Your task to perform on an android device: uninstall "Booking.com: Hotels and more" Image 0: 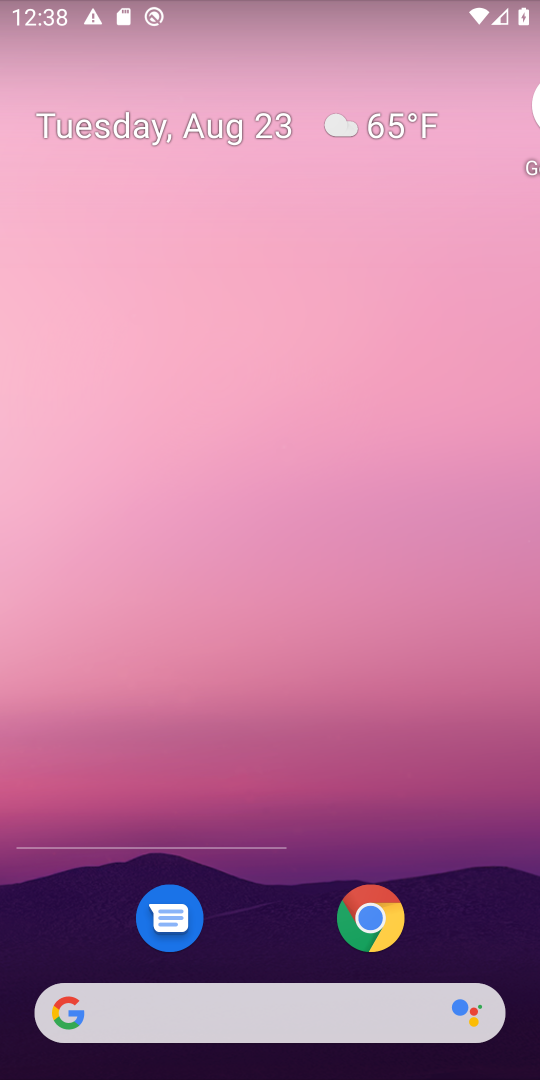
Step 0: press home button
Your task to perform on an android device: uninstall "Booking.com: Hotels and more" Image 1: 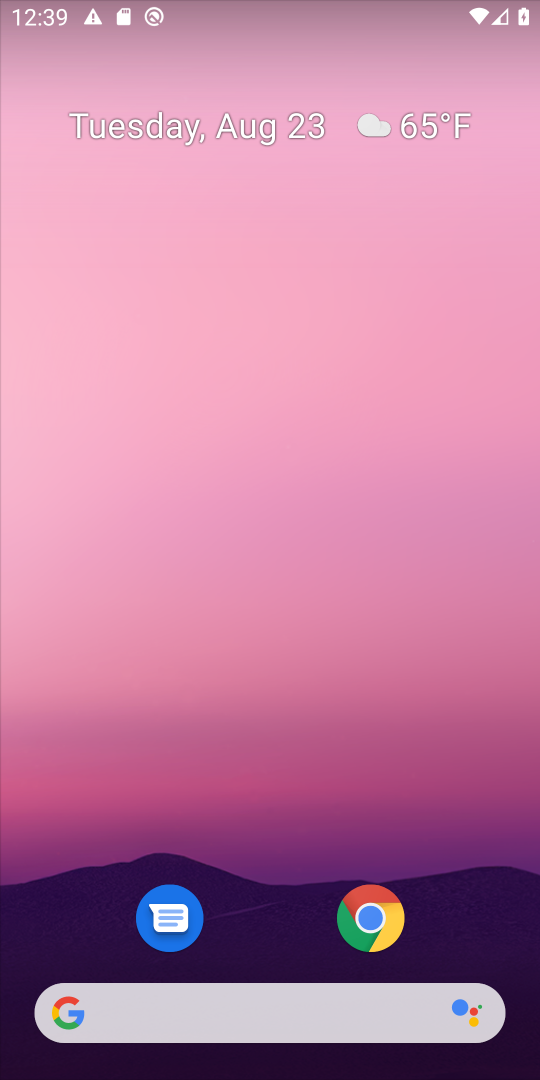
Step 1: press home button
Your task to perform on an android device: uninstall "Booking.com: Hotels and more" Image 2: 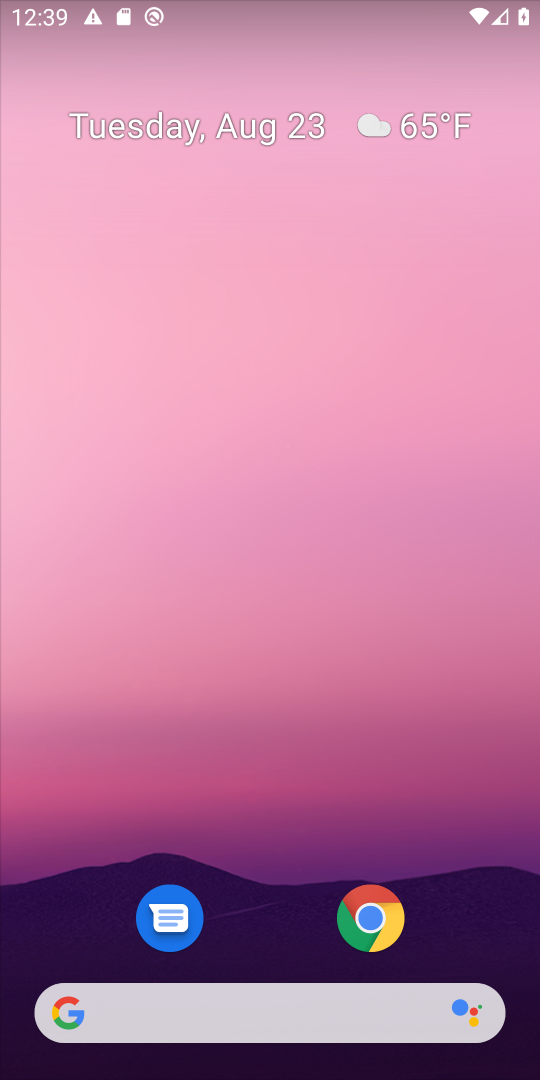
Step 2: click (279, 93)
Your task to perform on an android device: uninstall "Booking.com: Hotels and more" Image 3: 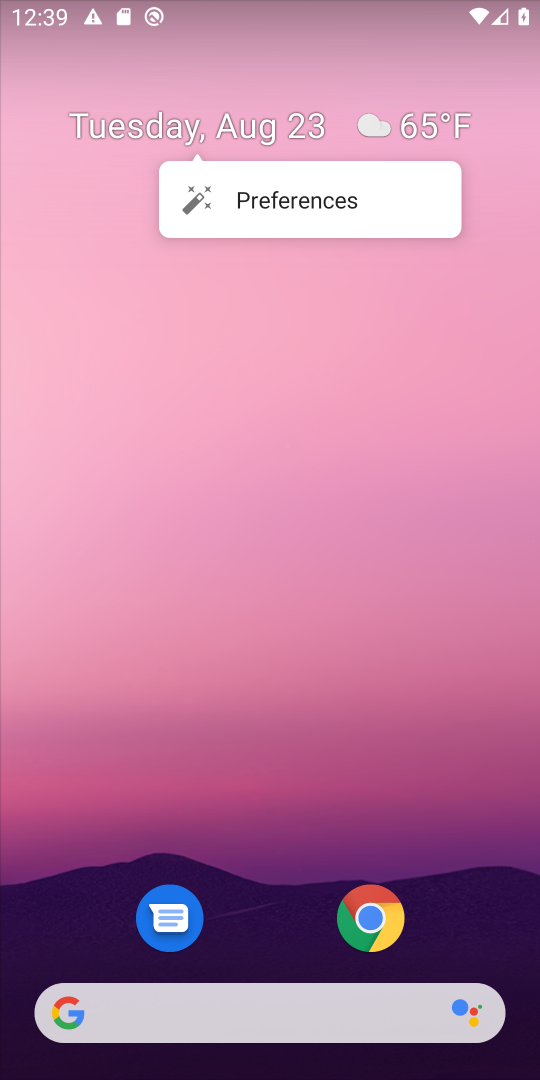
Step 3: click (272, 537)
Your task to perform on an android device: uninstall "Booking.com: Hotels and more" Image 4: 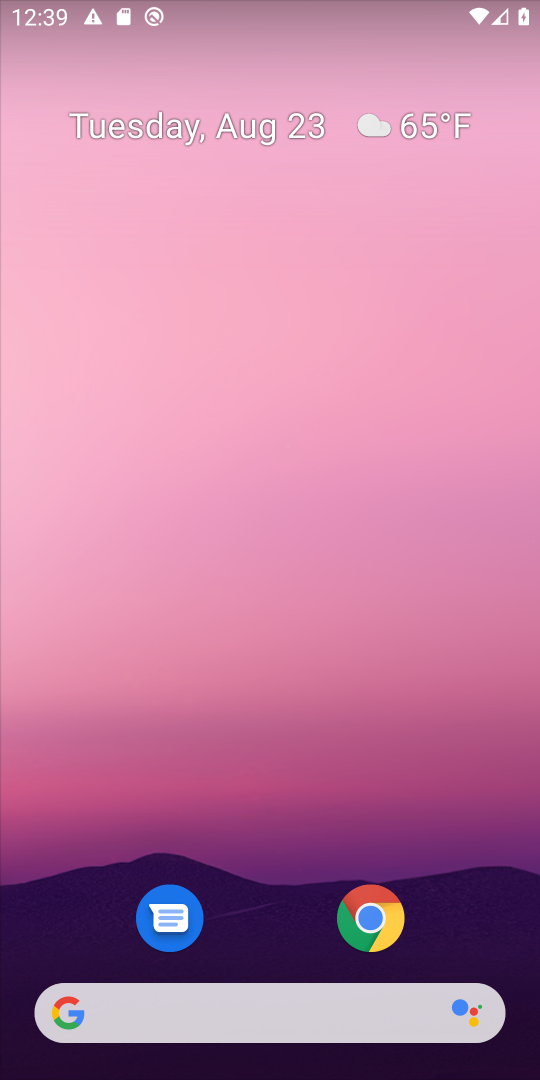
Step 4: drag from (290, 949) to (288, 108)
Your task to perform on an android device: uninstall "Booking.com: Hotels and more" Image 5: 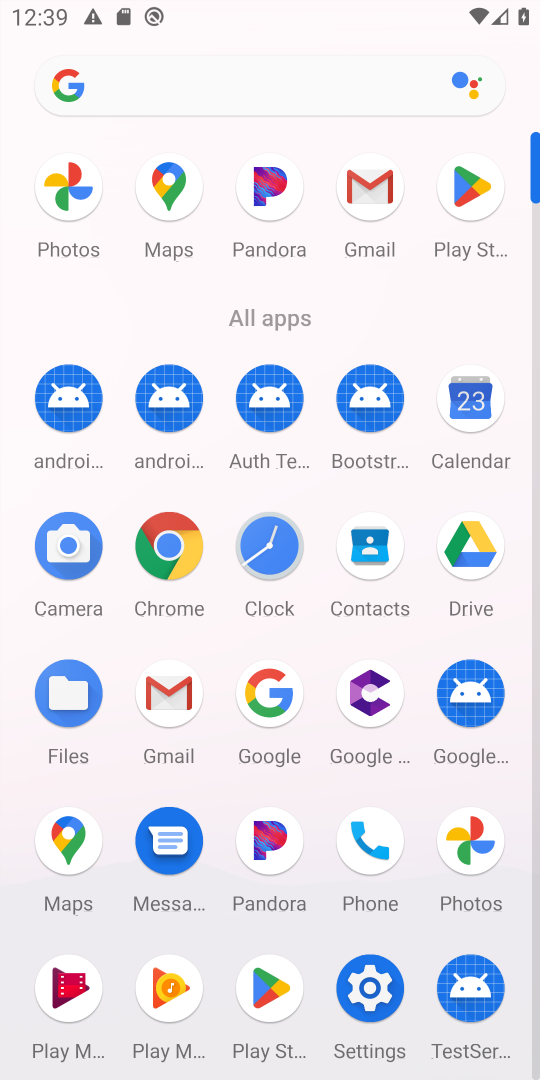
Step 5: click (466, 180)
Your task to perform on an android device: uninstall "Booking.com: Hotels and more" Image 6: 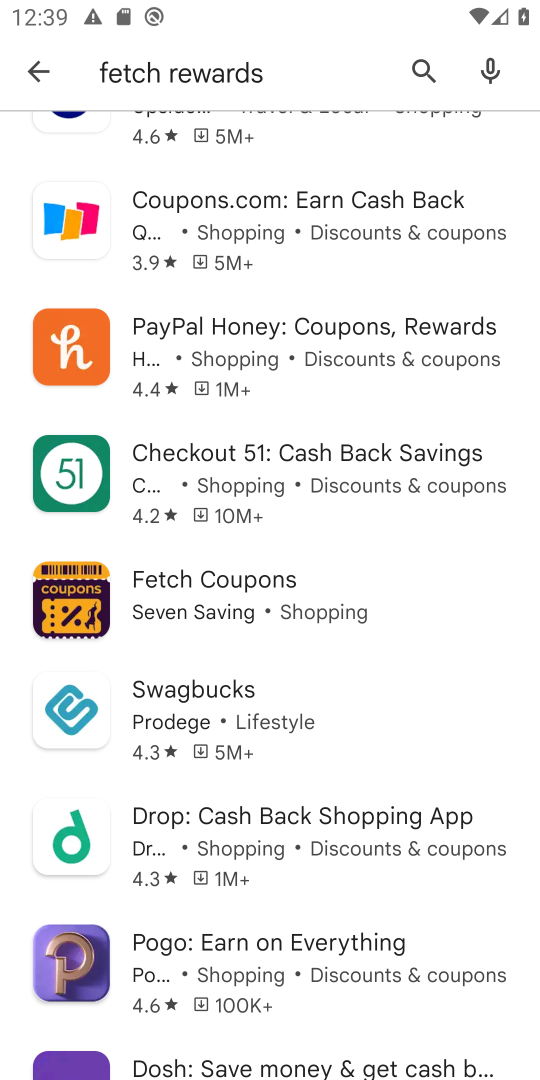
Step 6: click (419, 76)
Your task to perform on an android device: uninstall "Booking.com: Hotels and more" Image 7: 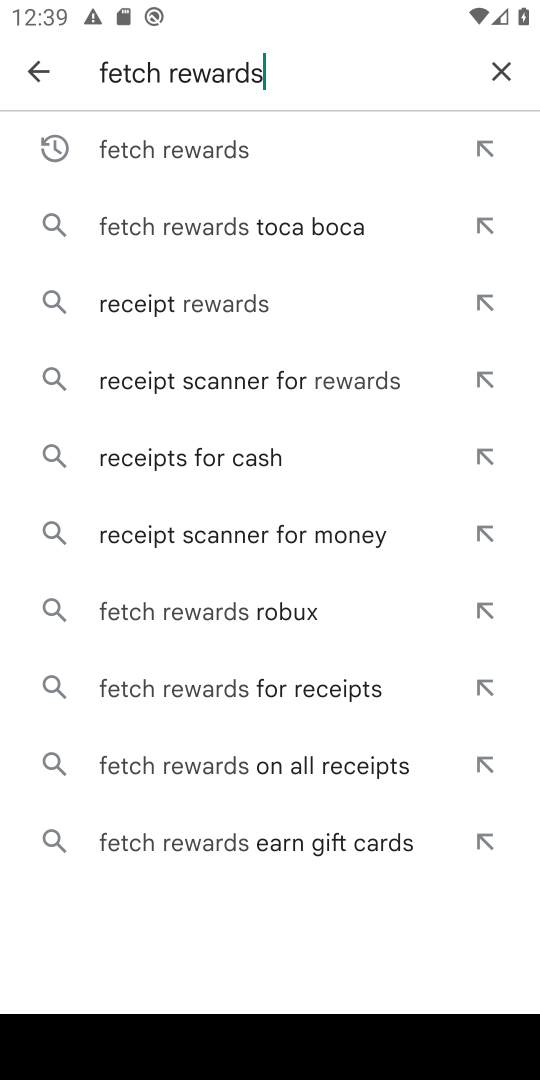
Step 7: click (516, 69)
Your task to perform on an android device: uninstall "Booking.com: Hotels and more" Image 8: 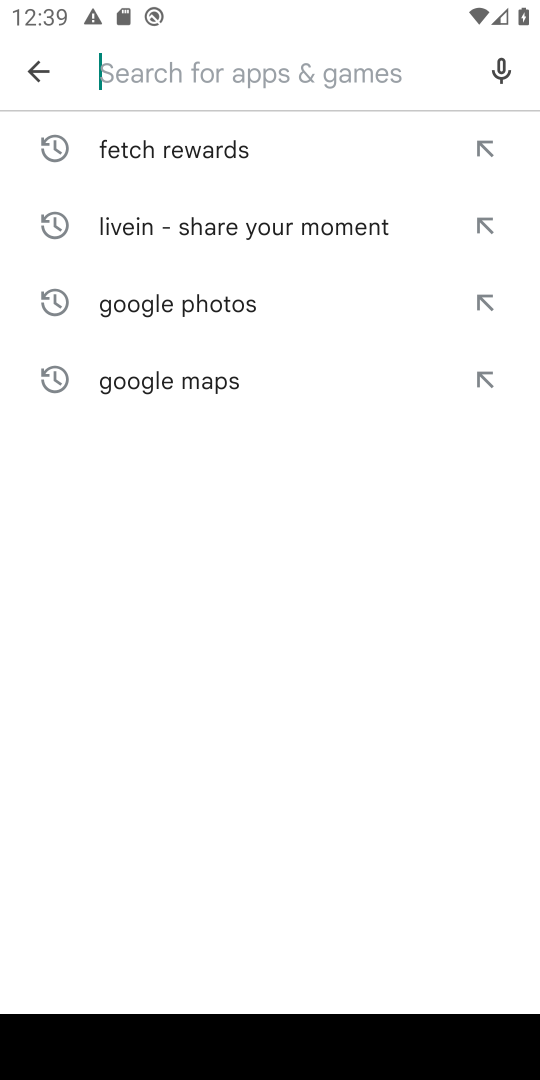
Step 8: type "Booking.com: Hotels and more"
Your task to perform on an android device: uninstall "Booking.com: Hotels and more" Image 9: 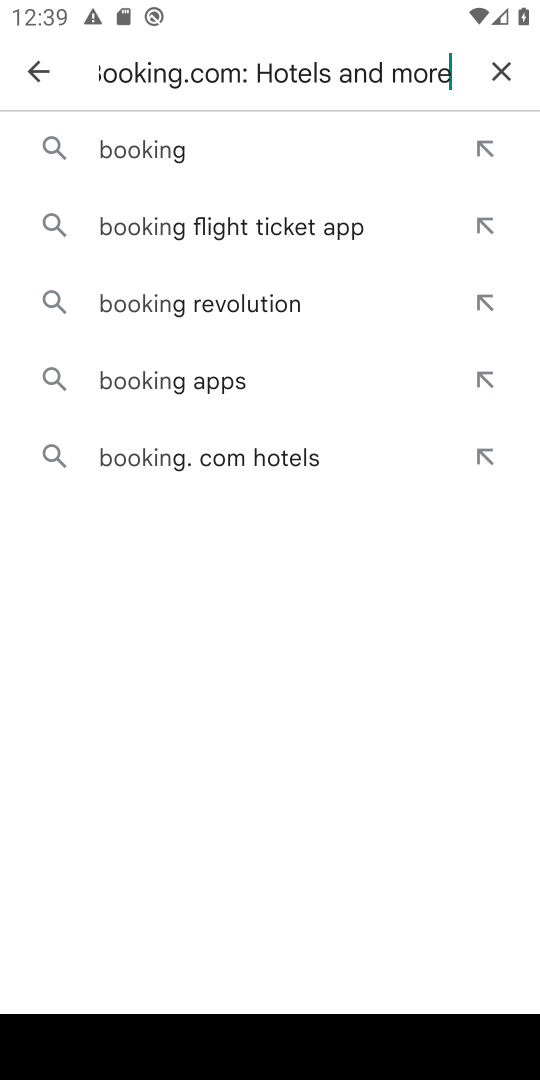
Step 9: type ""
Your task to perform on an android device: uninstall "Booking.com: Hotels and more" Image 10: 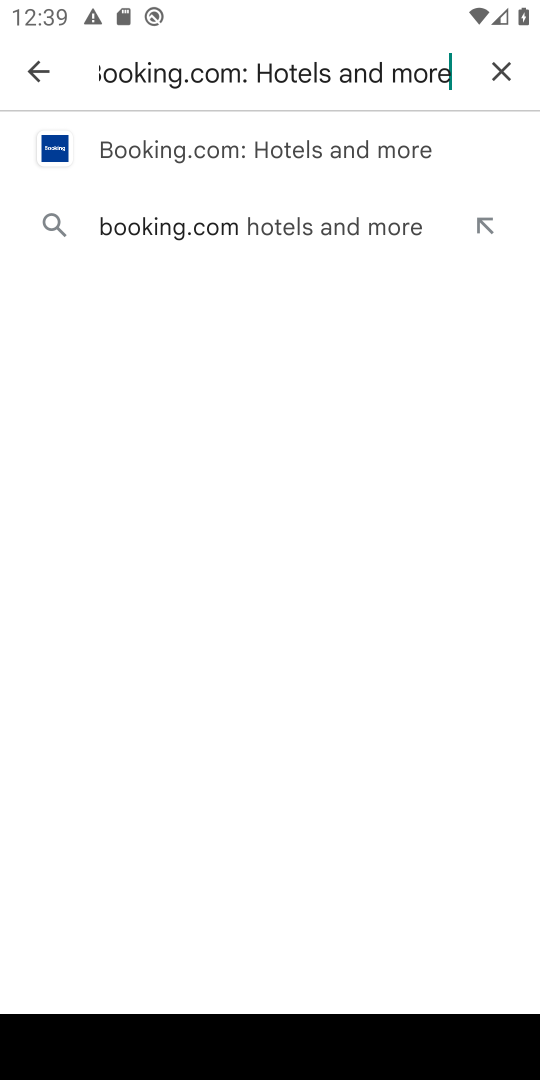
Step 10: click (535, 107)
Your task to perform on an android device: uninstall "Booking.com: Hotels and more" Image 11: 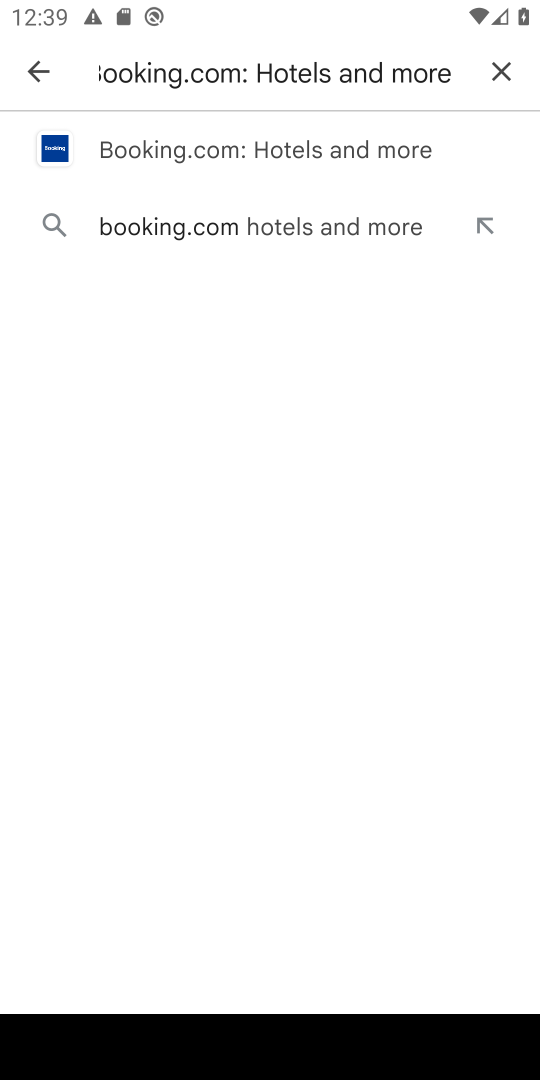
Step 11: drag from (535, 107) to (74, 151)
Your task to perform on an android device: uninstall "Booking.com: Hotels and more" Image 12: 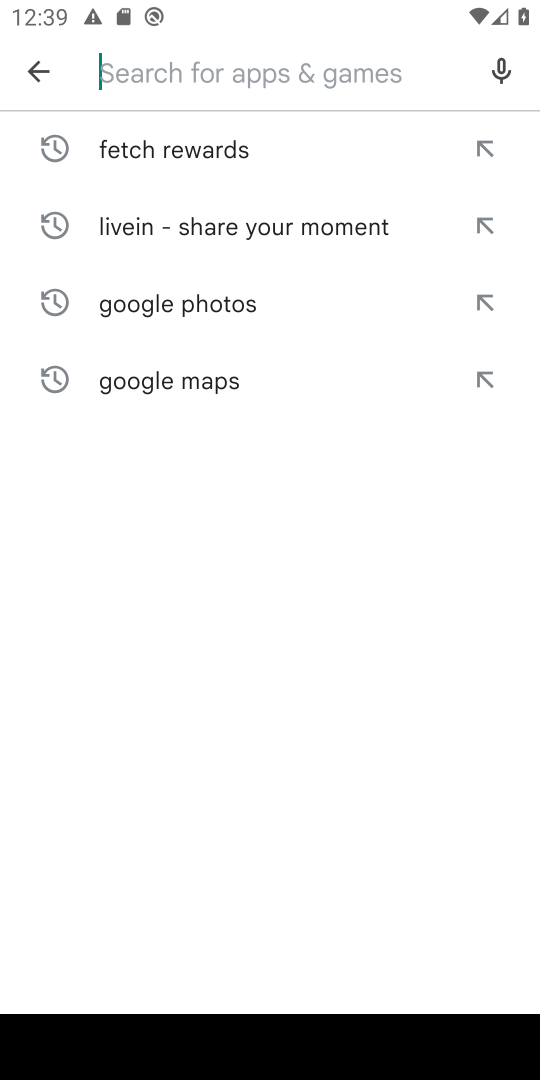
Step 12: drag from (74, 151) to (41, 83)
Your task to perform on an android device: uninstall "Booking.com: Hotels and more" Image 13: 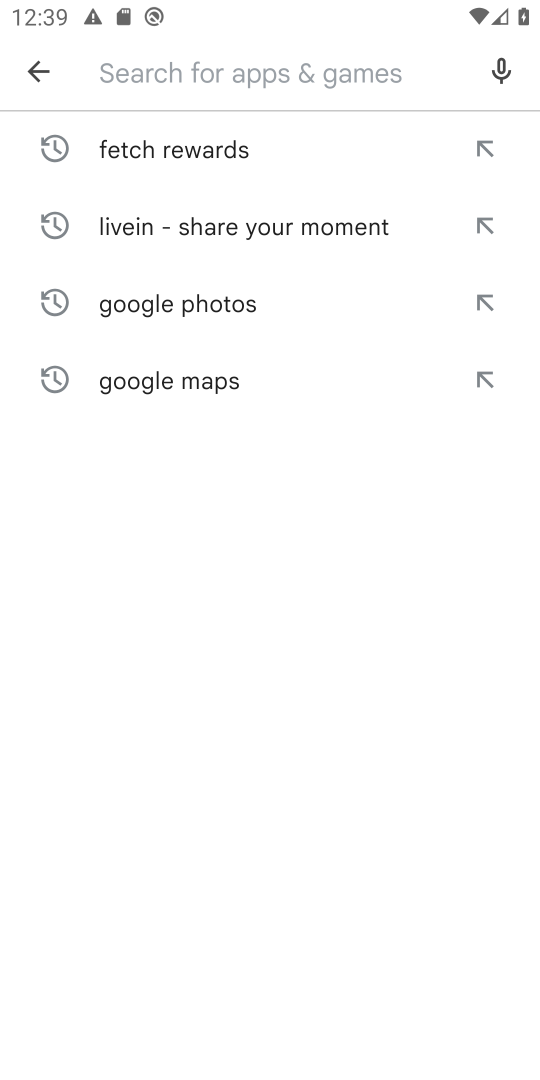
Step 13: click (249, 73)
Your task to perform on an android device: uninstall "Booking.com: Hotels and more" Image 14: 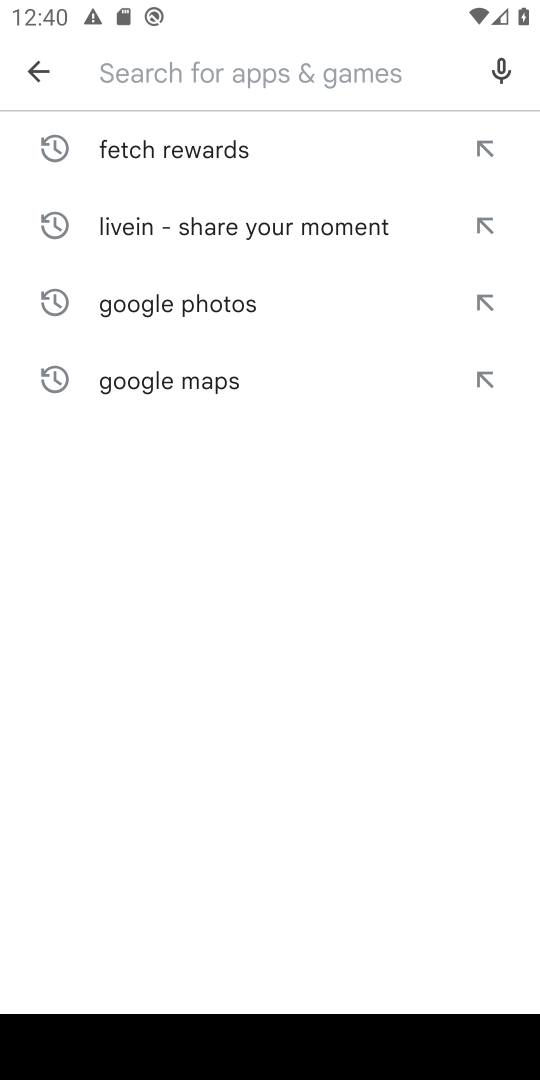
Step 14: type "Booking.com: Hotels and more"
Your task to perform on an android device: uninstall "Booking.com: Hotels and more" Image 15: 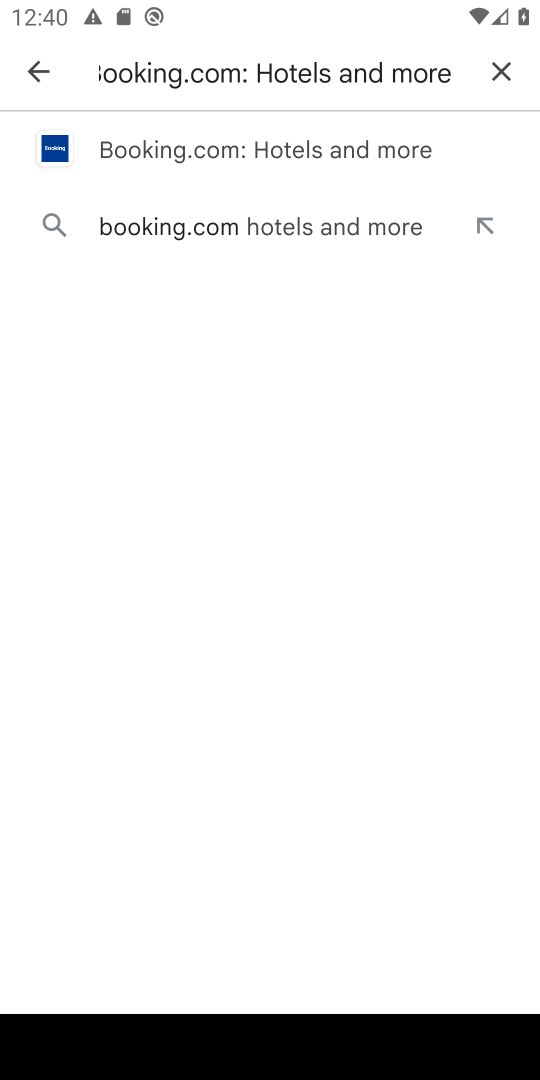
Step 15: click (258, 149)
Your task to perform on an android device: uninstall "Booking.com: Hotels and more" Image 16: 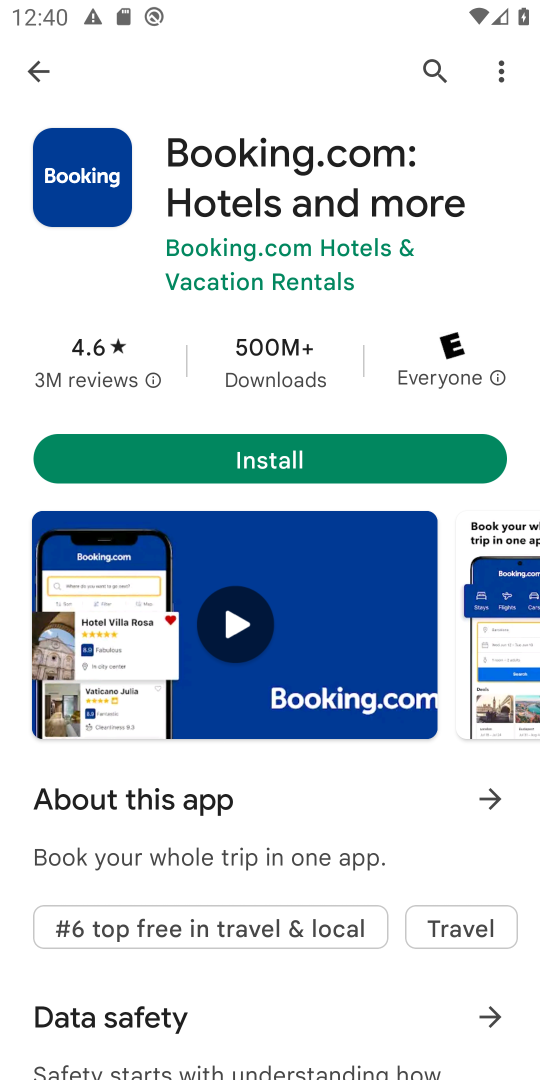
Step 16: task complete